Your task to perform on an android device: turn off airplane mode Image 0: 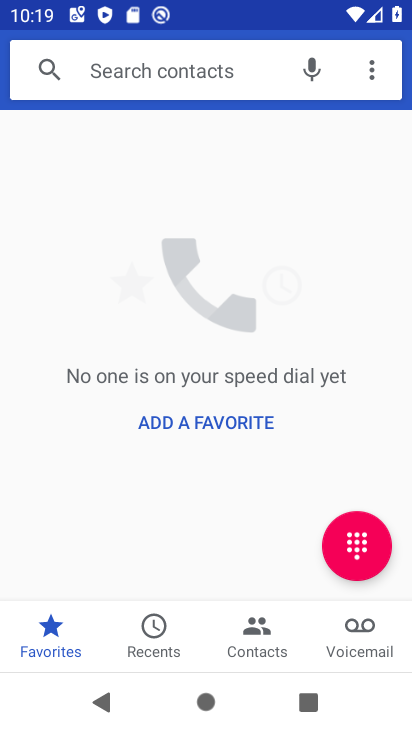
Step 0: press home button
Your task to perform on an android device: turn off airplane mode Image 1: 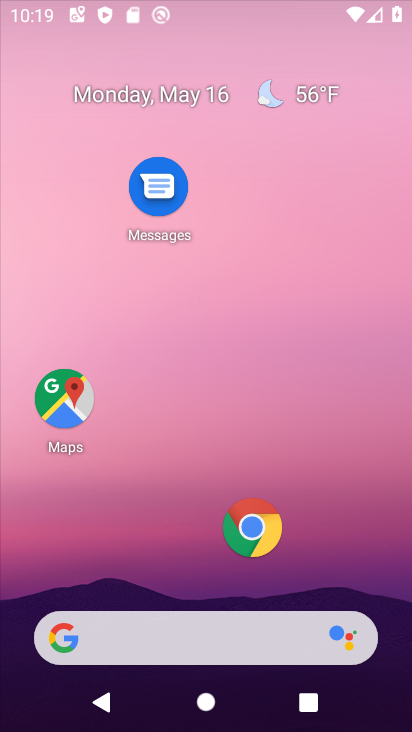
Step 1: drag from (202, 541) to (154, 66)
Your task to perform on an android device: turn off airplane mode Image 2: 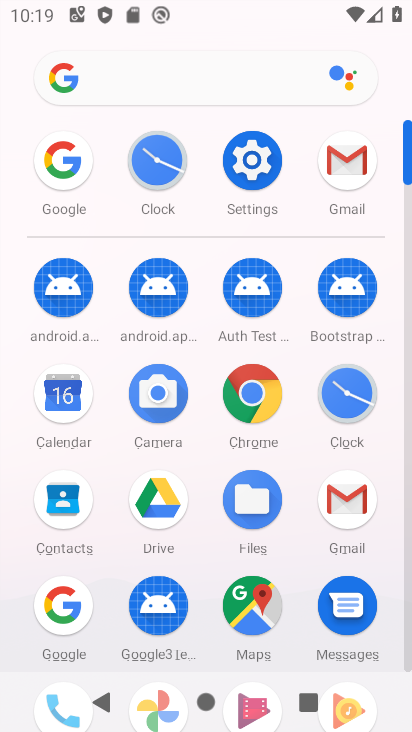
Step 2: click (248, 160)
Your task to perform on an android device: turn off airplane mode Image 3: 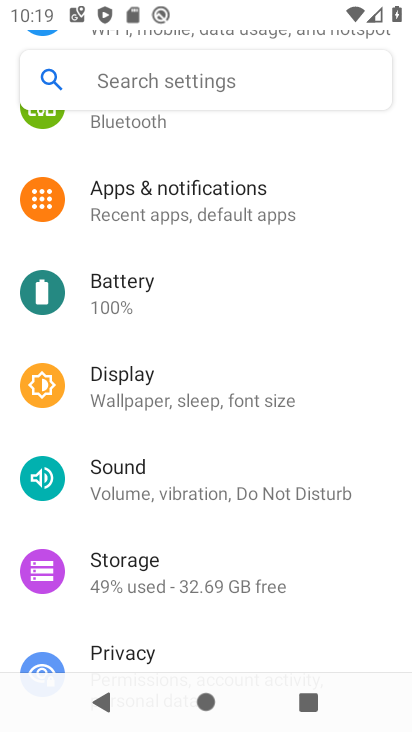
Step 3: drag from (216, 251) to (238, 533)
Your task to perform on an android device: turn off airplane mode Image 4: 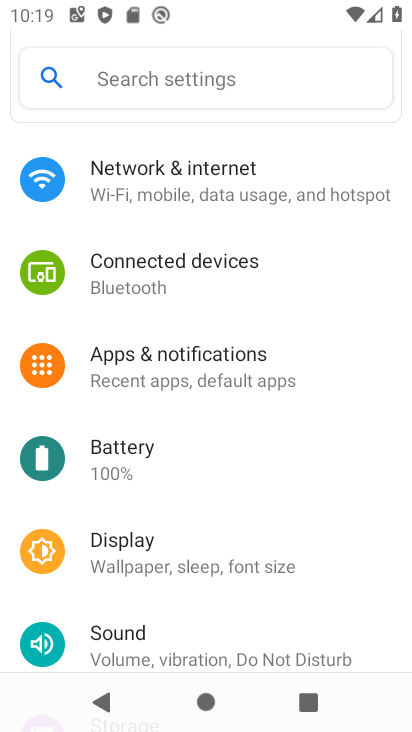
Step 4: click (169, 187)
Your task to perform on an android device: turn off airplane mode Image 5: 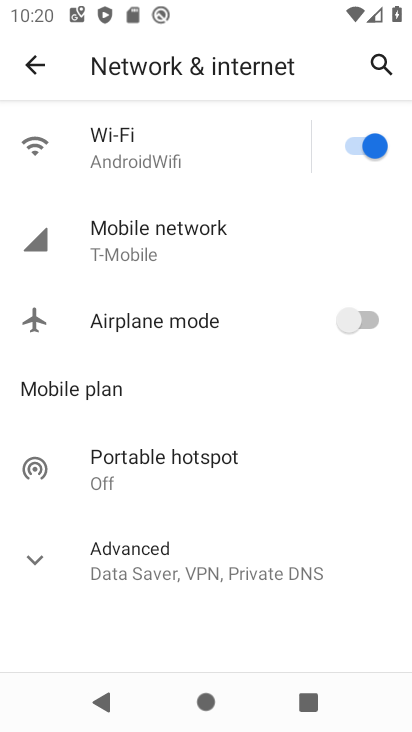
Step 5: task complete